Your task to perform on an android device: change keyboard looks Image 0: 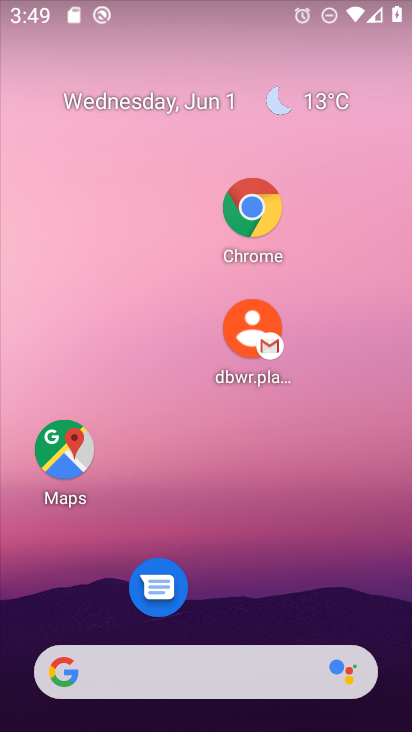
Step 0: drag from (242, 601) to (142, 244)
Your task to perform on an android device: change keyboard looks Image 1: 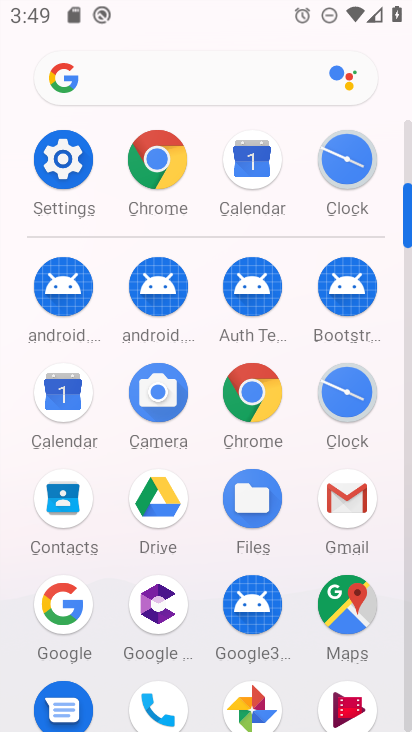
Step 1: click (66, 147)
Your task to perform on an android device: change keyboard looks Image 2: 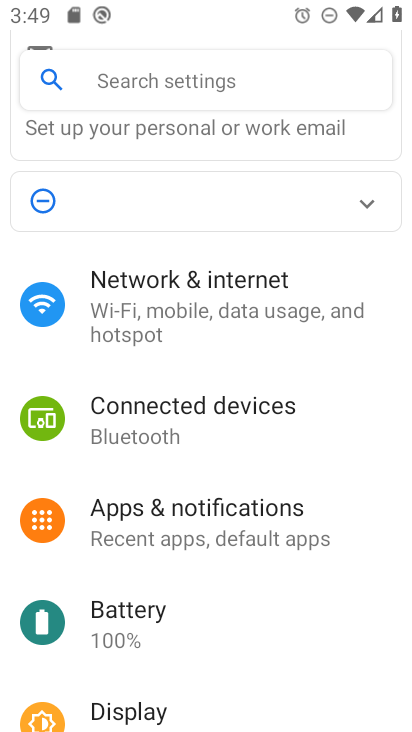
Step 2: drag from (178, 510) to (170, 334)
Your task to perform on an android device: change keyboard looks Image 3: 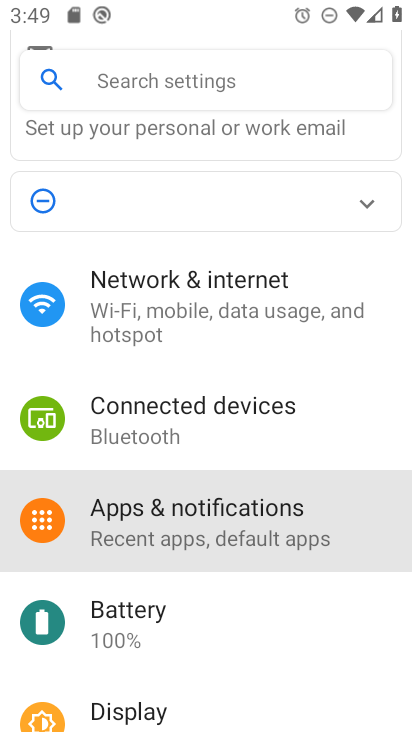
Step 3: drag from (147, 530) to (181, 299)
Your task to perform on an android device: change keyboard looks Image 4: 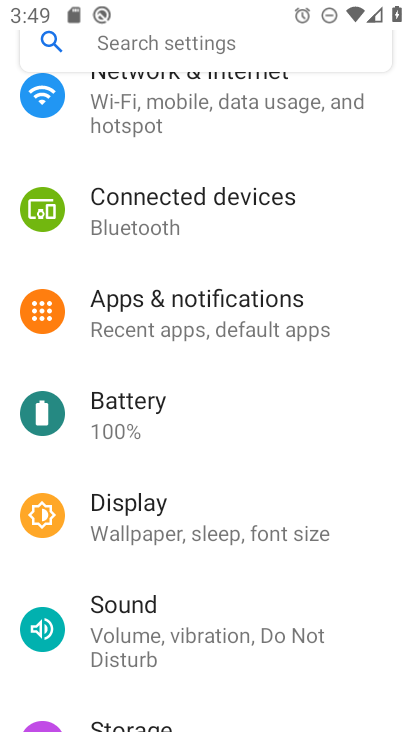
Step 4: drag from (225, 559) to (246, 382)
Your task to perform on an android device: change keyboard looks Image 5: 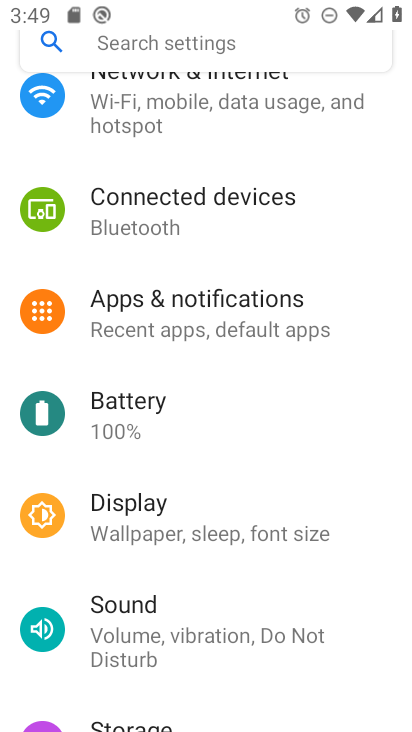
Step 5: drag from (139, 504) to (134, 242)
Your task to perform on an android device: change keyboard looks Image 6: 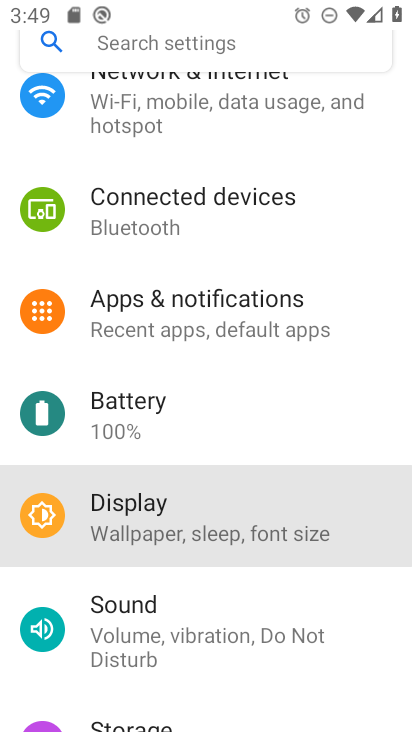
Step 6: drag from (153, 502) to (161, 285)
Your task to perform on an android device: change keyboard looks Image 7: 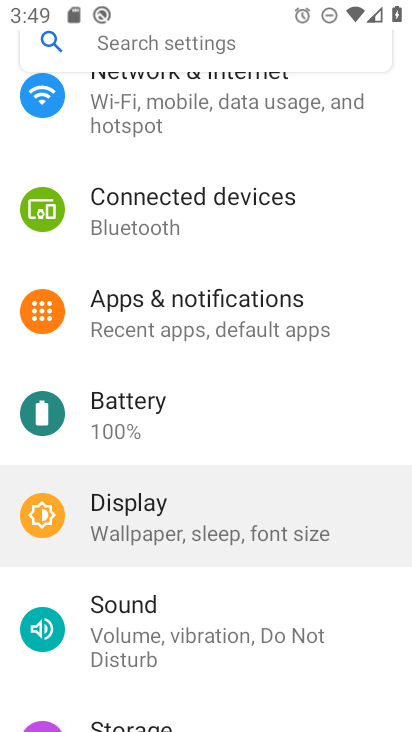
Step 7: drag from (161, 466) to (177, 210)
Your task to perform on an android device: change keyboard looks Image 8: 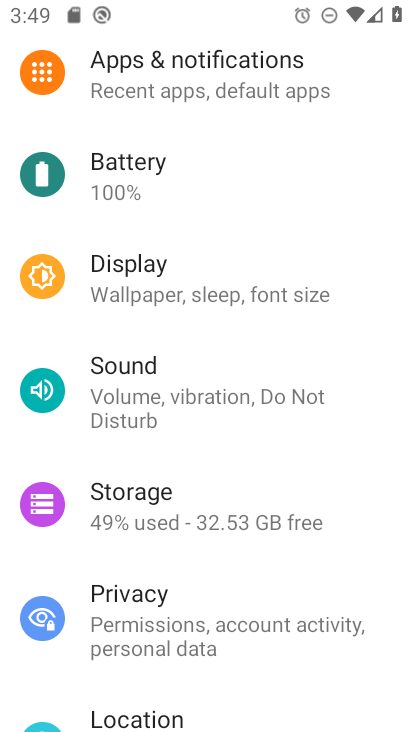
Step 8: drag from (159, 571) to (168, 345)
Your task to perform on an android device: change keyboard looks Image 9: 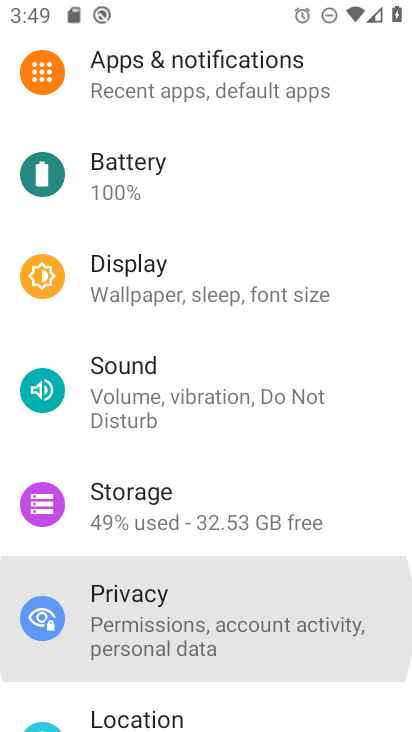
Step 9: drag from (153, 676) to (184, 408)
Your task to perform on an android device: change keyboard looks Image 10: 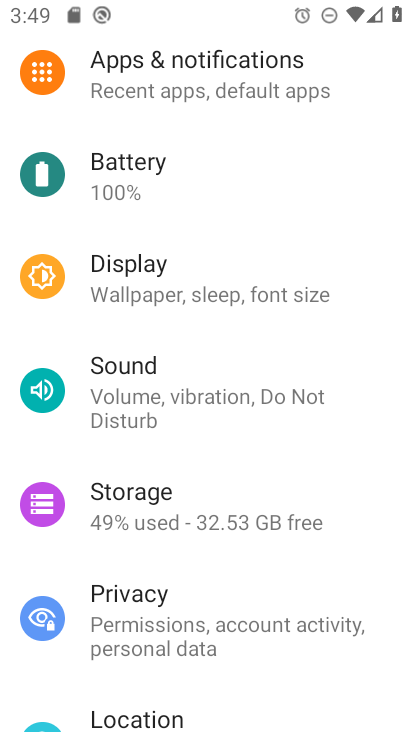
Step 10: drag from (126, 612) to (156, 333)
Your task to perform on an android device: change keyboard looks Image 11: 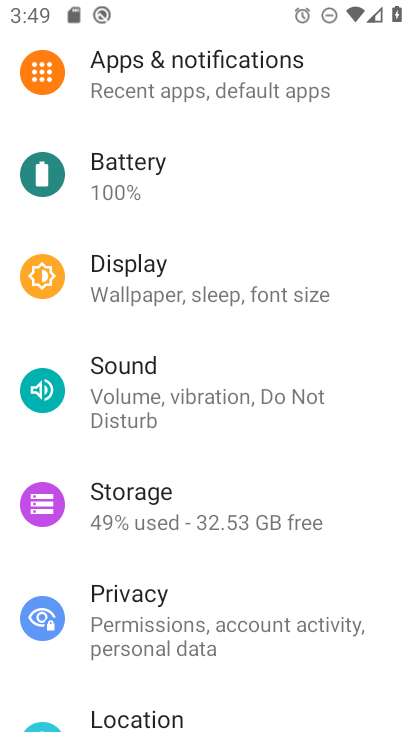
Step 11: drag from (178, 606) to (186, 293)
Your task to perform on an android device: change keyboard looks Image 12: 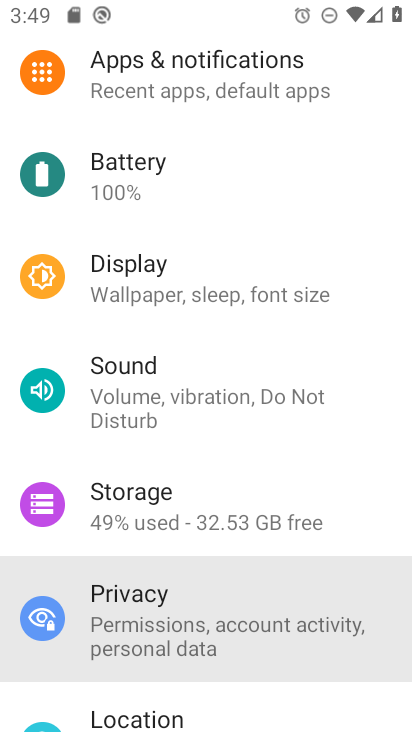
Step 12: drag from (191, 464) to (204, 225)
Your task to perform on an android device: change keyboard looks Image 13: 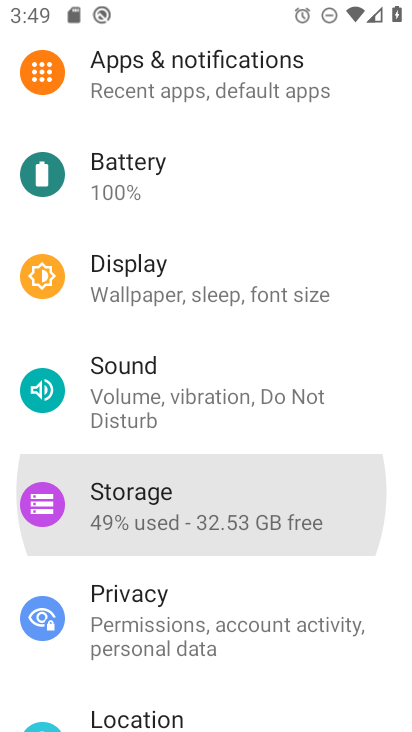
Step 13: drag from (183, 418) to (192, 206)
Your task to perform on an android device: change keyboard looks Image 14: 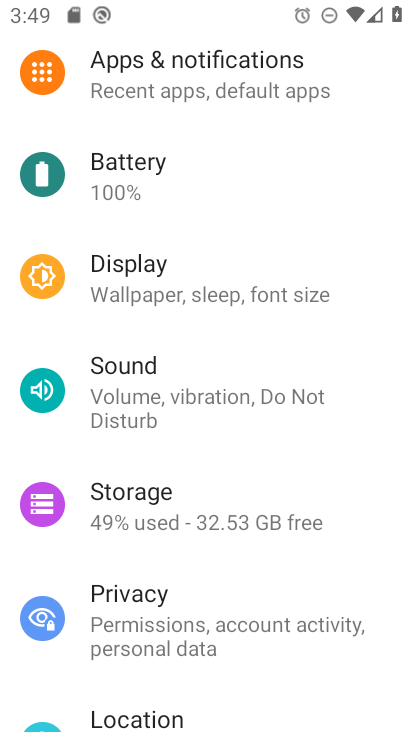
Step 14: drag from (141, 612) to (162, 350)
Your task to perform on an android device: change keyboard looks Image 15: 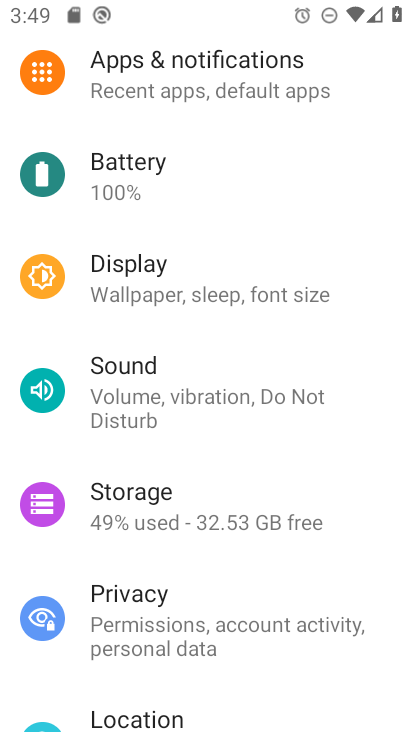
Step 15: drag from (118, 611) to (160, 384)
Your task to perform on an android device: change keyboard looks Image 16: 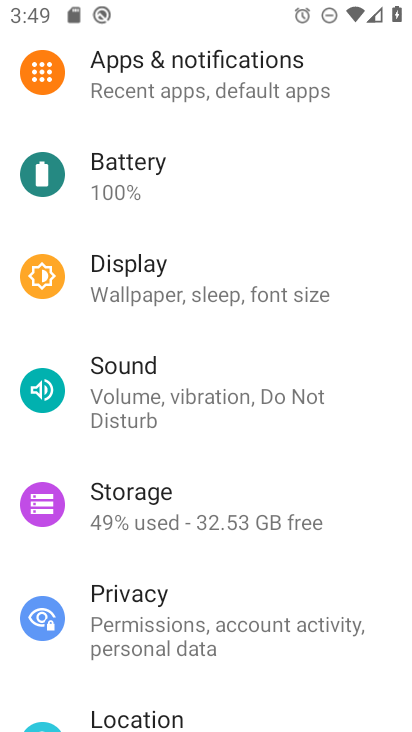
Step 16: drag from (156, 655) to (177, 187)
Your task to perform on an android device: change keyboard looks Image 17: 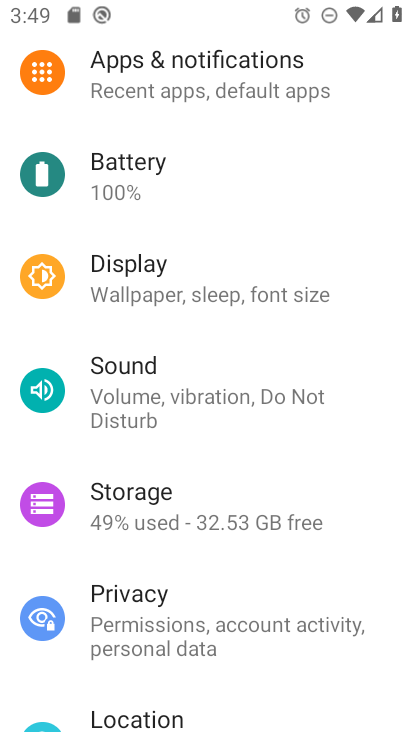
Step 17: drag from (220, 565) to (203, 290)
Your task to perform on an android device: change keyboard looks Image 18: 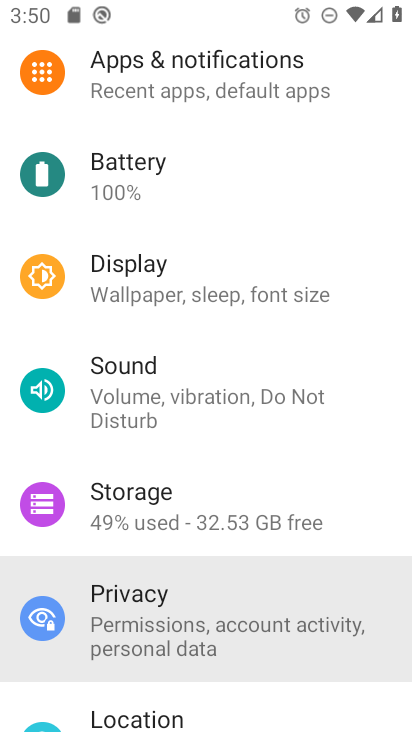
Step 18: drag from (176, 612) to (165, 329)
Your task to perform on an android device: change keyboard looks Image 19: 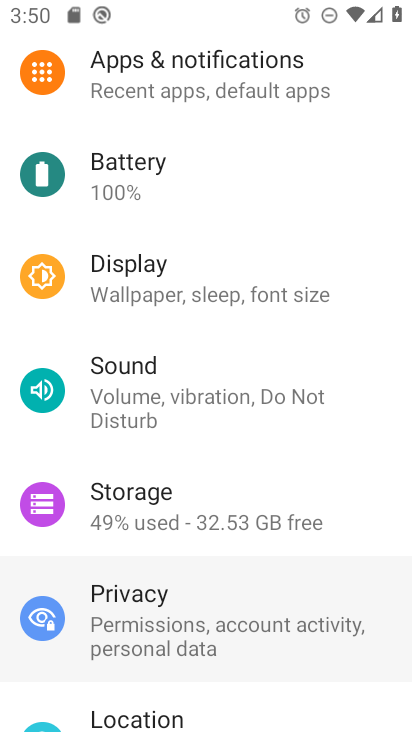
Step 19: drag from (205, 657) to (177, 301)
Your task to perform on an android device: change keyboard looks Image 20: 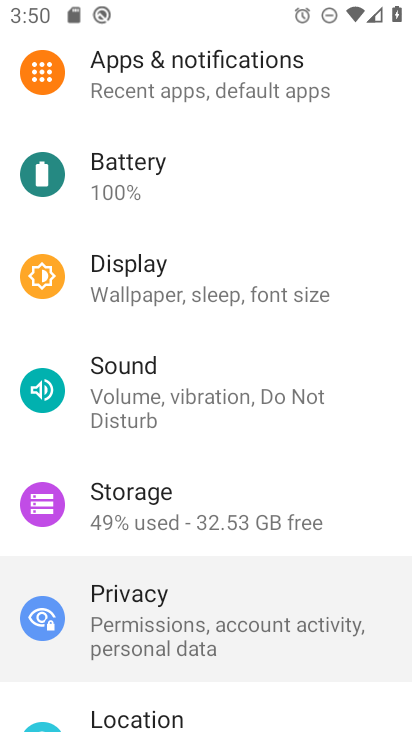
Step 20: drag from (160, 651) to (140, 310)
Your task to perform on an android device: change keyboard looks Image 21: 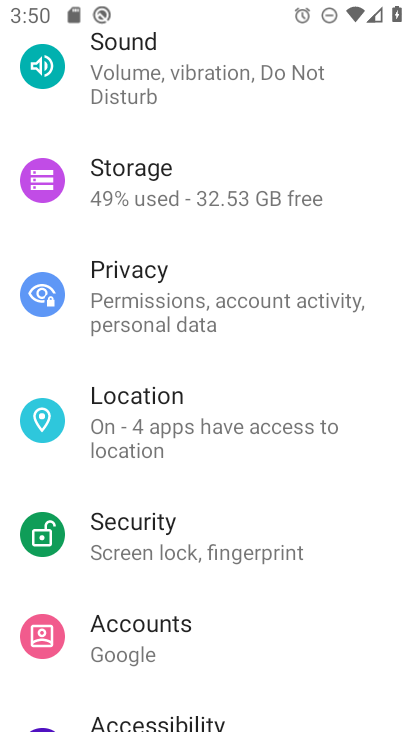
Step 21: drag from (153, 562) to (185, 238)
Your task to perform on an android device: change keyboard looks Image 22: 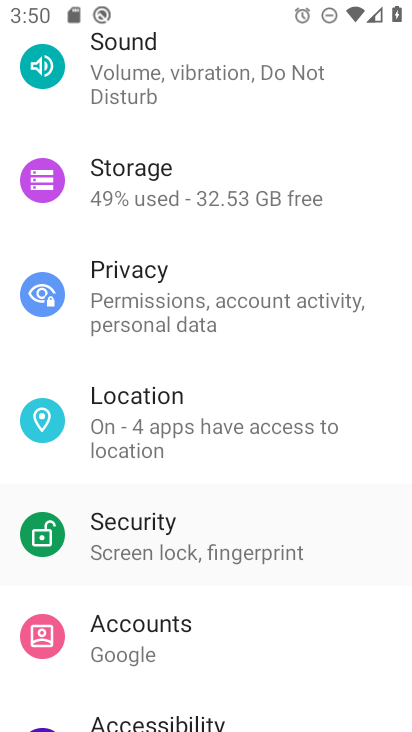
Step 22: drag from (229, 551) to (240, 188)
Your task to perform on an android device: change keyboard looks Image 23: 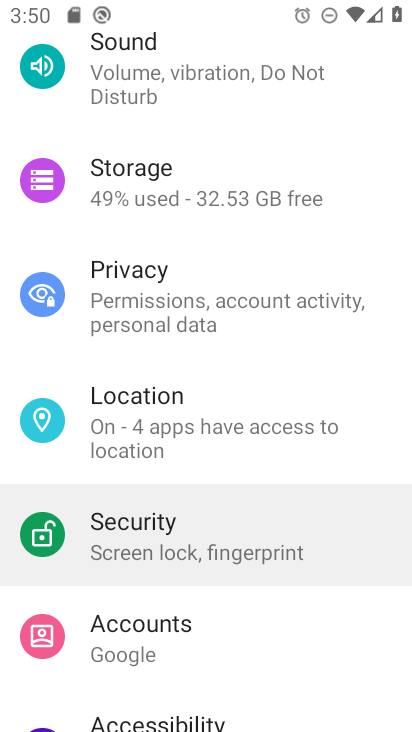
Step 23: drag from (143, 618) to (143, 277)
Your task to perform on an android device: change keyboard looks Image 24: 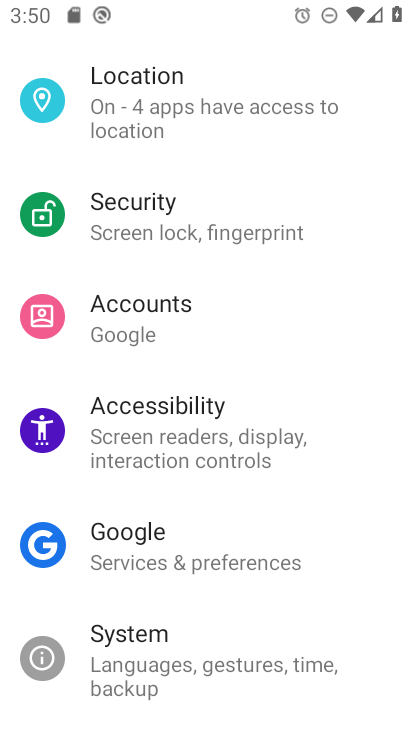
Step 24: drag from (149, 591) to (156, 271)
Your task to perform on an android device: change keyboard looks Image 25: 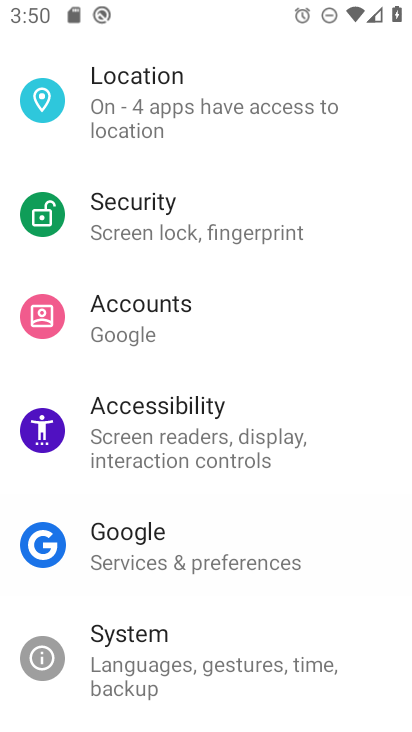
Step 25: drag from (171, 566) to (171, 188)
Your task to perform on an android device: change keyboard looks Image 26: 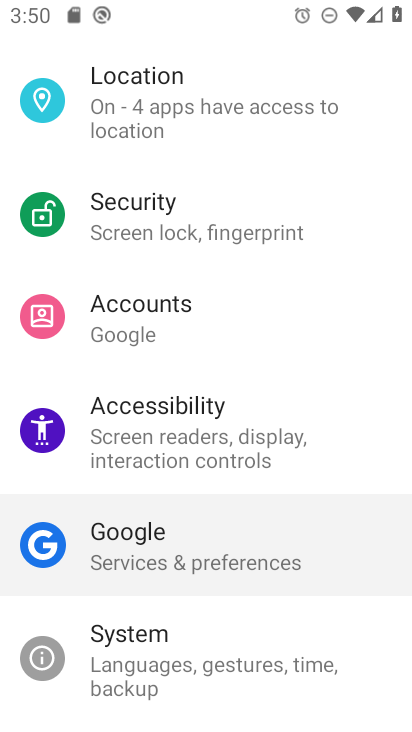
Step 26: drag from (199, 394) to (201, 199)
Your task to perform on an android device: change keyboard looks Image 27: 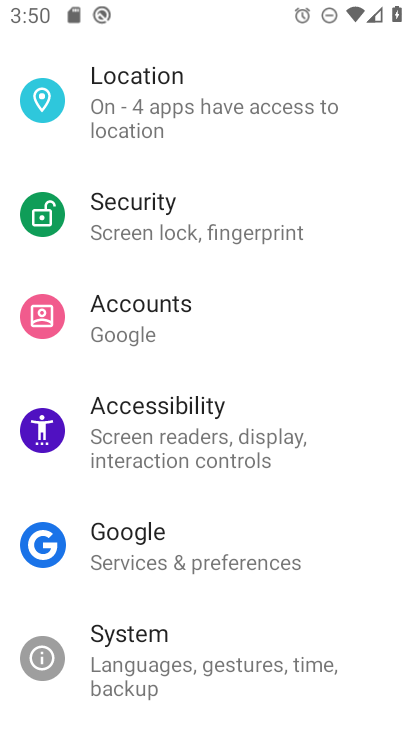
Step 27: drag from (210, 610) to (205, 313)
Your task to perform on an android device: change keyboard looks Image 28: 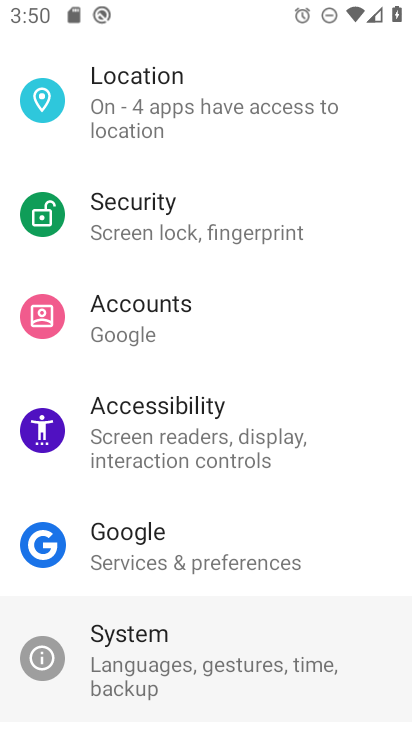
Step 28: drag from (174, 625) to (167, 263)
Your task to perform on an android device: change keyboard looks Image 29: 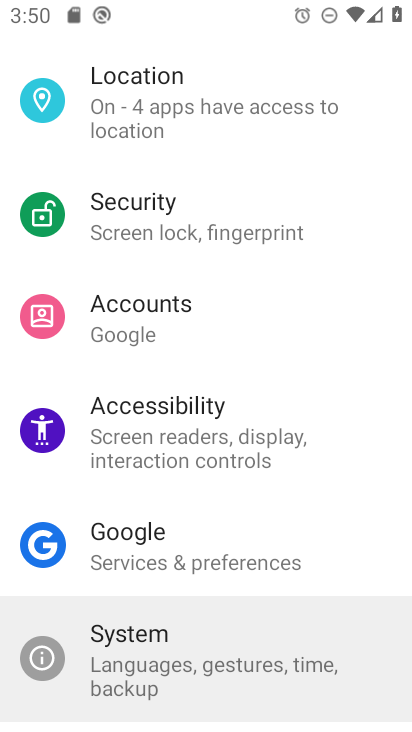
Step 29: drag from (129, 197) to (161, 489)
Your task to perform on an android device: change keyboard looks Image 30: 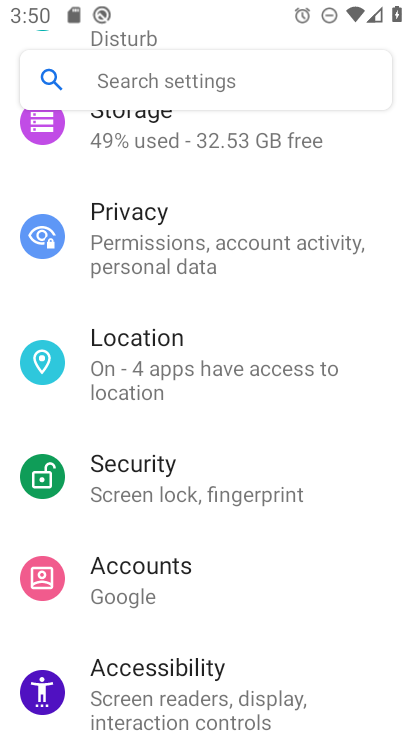
Step 30: drag from (120, 366) to (170, 532)
Your task to perform on an android device: change keyboard looks Image 31: 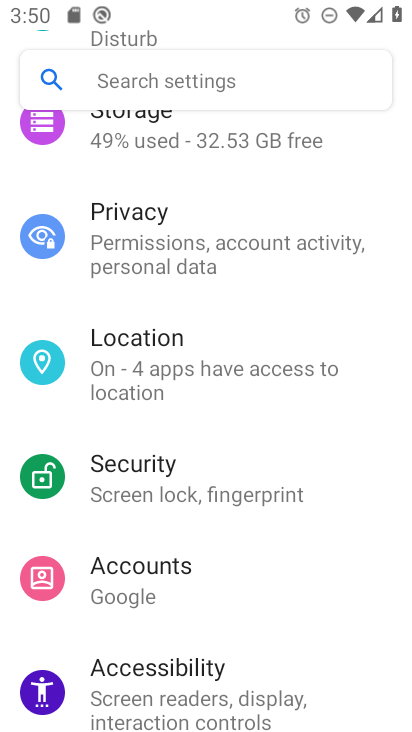
Step 31: drag from (183, 607) to (202, 279)
Your task to perform on an android device: change keyboard looks Image 32: 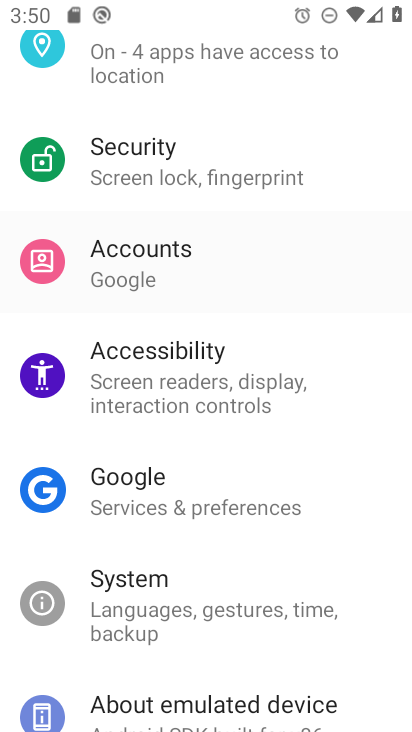
Step 32: drag from (178, 436) to (177, 297)
Your task to perform on an android device: change keyboard looks Image 33: 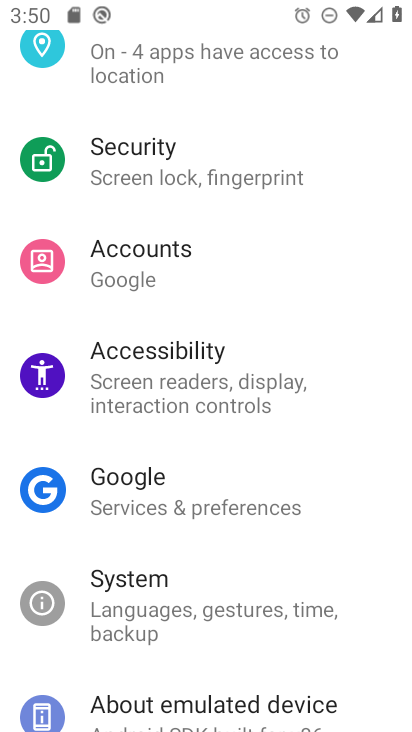
Step 33: drag from (136, 627) to (153, 594)
Your task to perform on an android device: change keyboard looks Image 34: 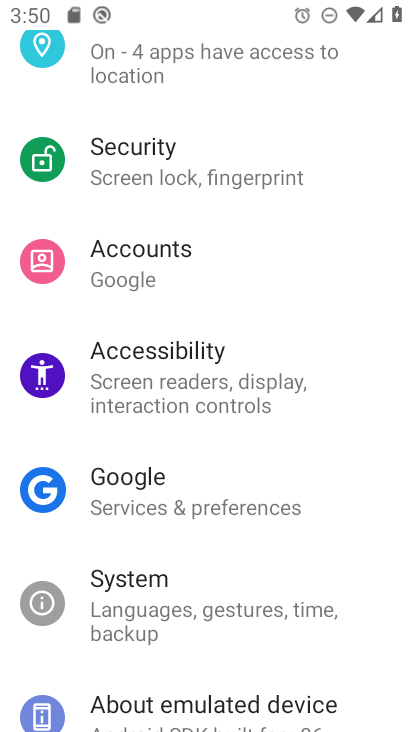
Step 34: click (145, 610)
Your task to perform on an android device: change keyboard looks Image 35: 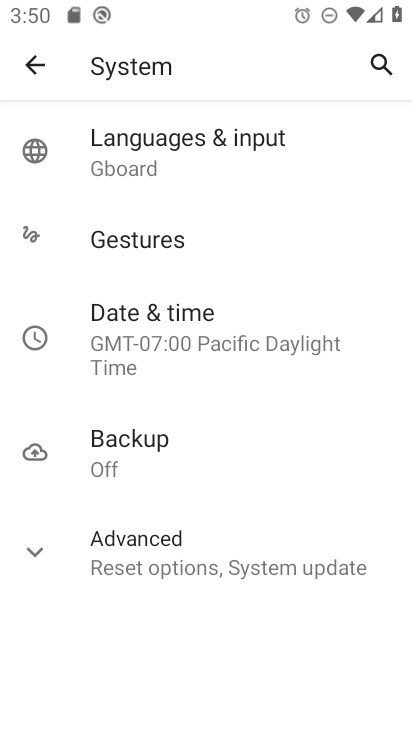
Step 35: click (133, 172)
Your task to perform on an android device: change keyboard looks Image 36: 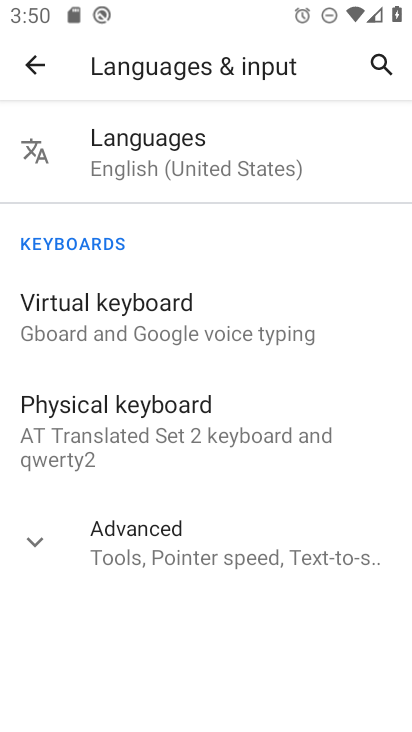
Step 36: click (88, 318)
Your task to perform on an android device: change keyboard looks Image 37: 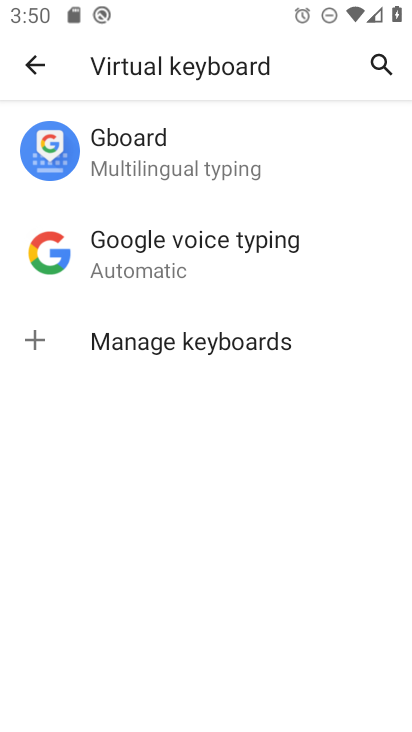
Step 37: click (98, 152)
Your task to perform on an android device: change keyboard looks Image 38: 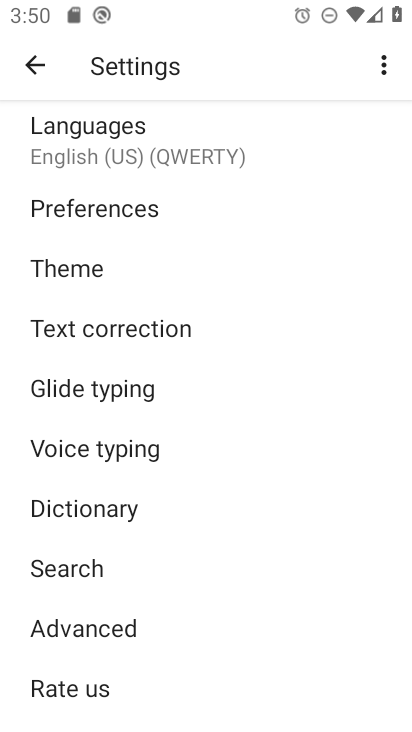
Step 38: click (52, 262)
Your task to perform on an android device: change keyboard looks Image 39: 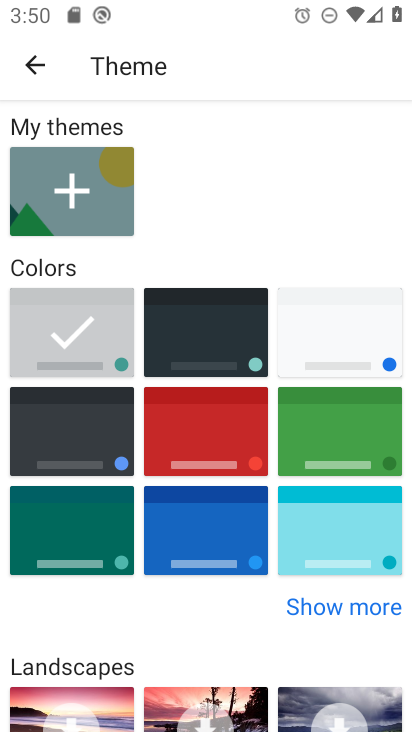
Step 39: click (217, 422)
Your task to perform on an android device: change keyboard looks Image 40: 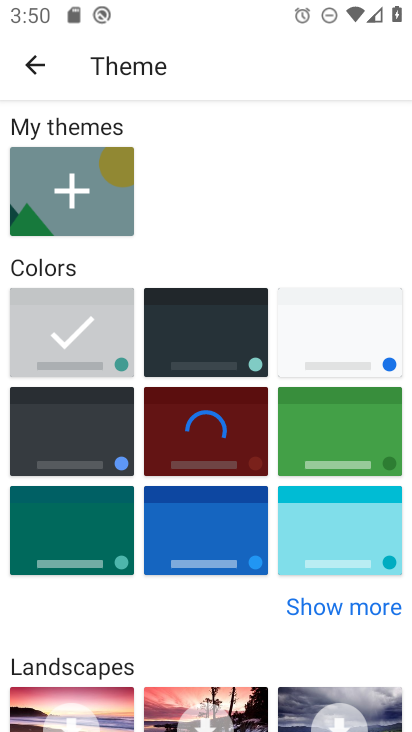
Step 40: click (194, 358)
Your task to perform on an android device: change keyboard looks Image 41: 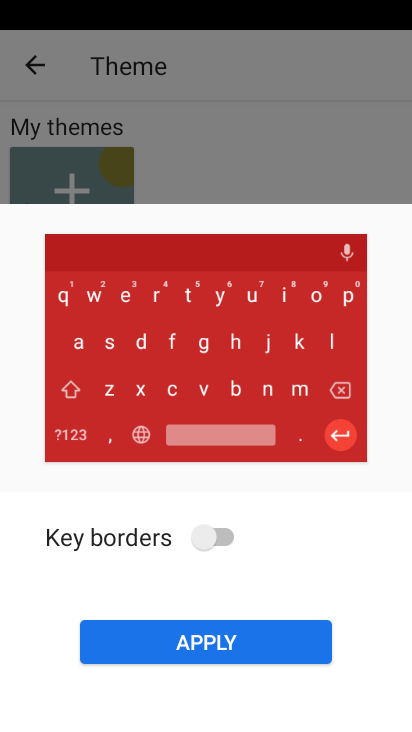
Step 41: click (217, 630)
Your task to perform on an android device: change keyboard looks Image 42: 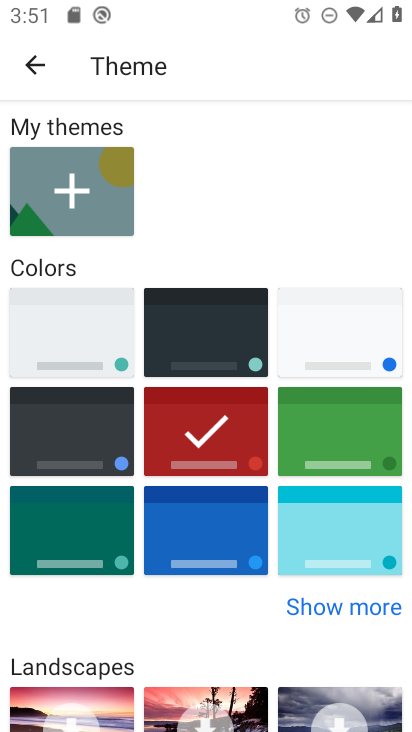
Step 42: task complete